Your task to perform on an android device: turn off translation in the chrome app Image 0: 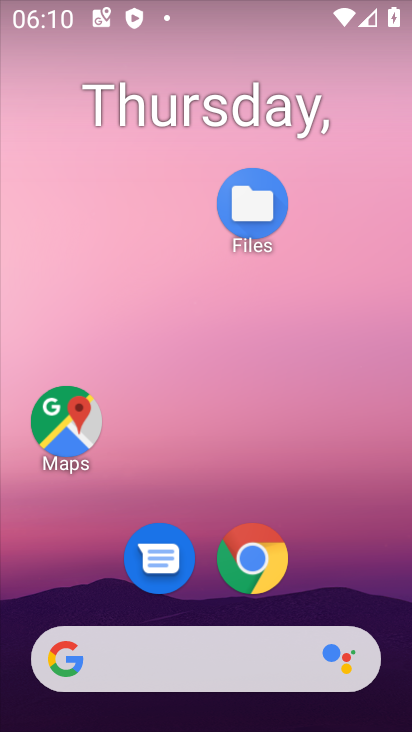
Step 0: drag from (322, 539) to (335, 87)
Your task to perform on an android device: turn off translation in the chrome app Image 1: 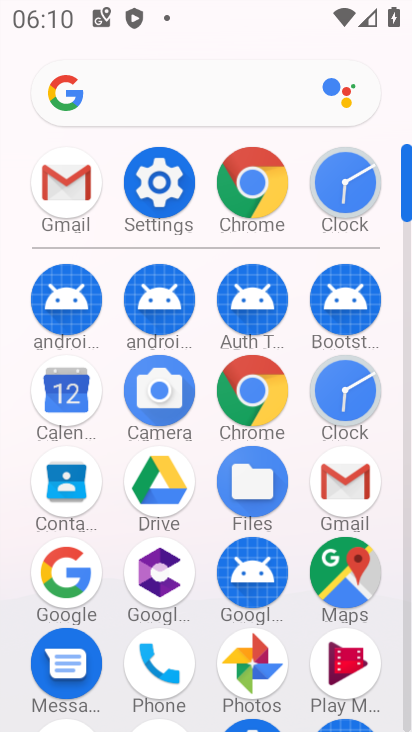
Step 1: click (245, 187)
Your task to perform on an android device: turn off translation in the chrome app Image 2: 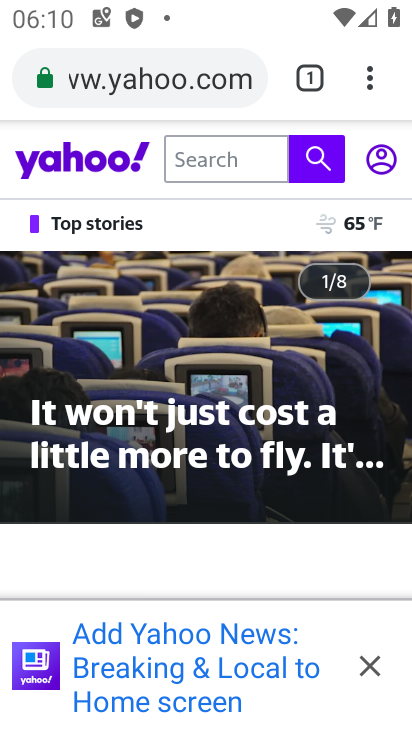
Step 2: click (370, 73)
Your task to perform on an android device: turn off translation in the chrome app Image 3: 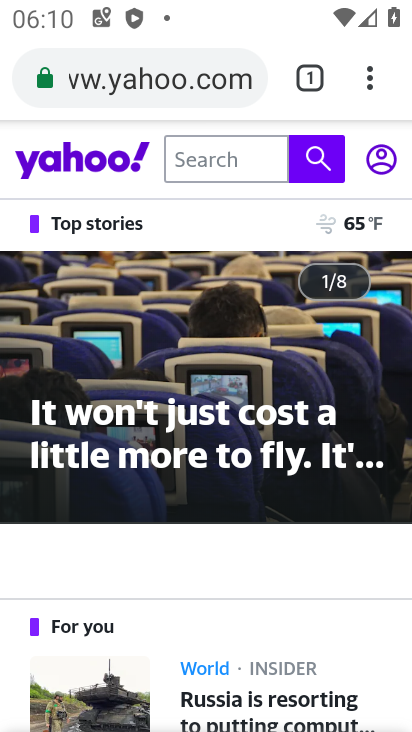
Step 3: click (366, 77)
Your task to perform on an android device: turn off translation in the chrome app Image 4: 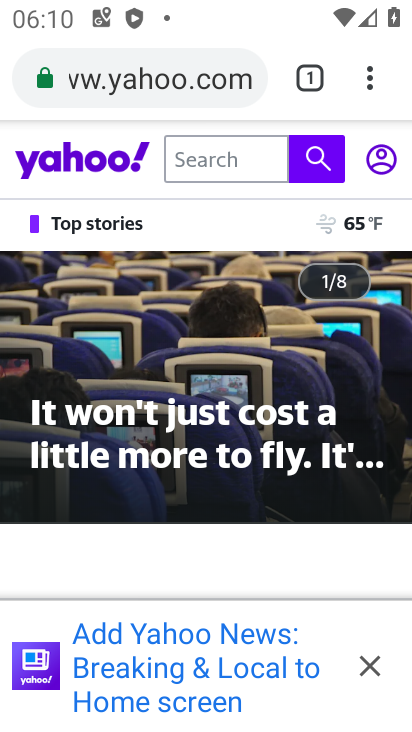
Step 4: click (366, 79)
Your task to perform on an android device: turn off translation in the chrome app Image 5: 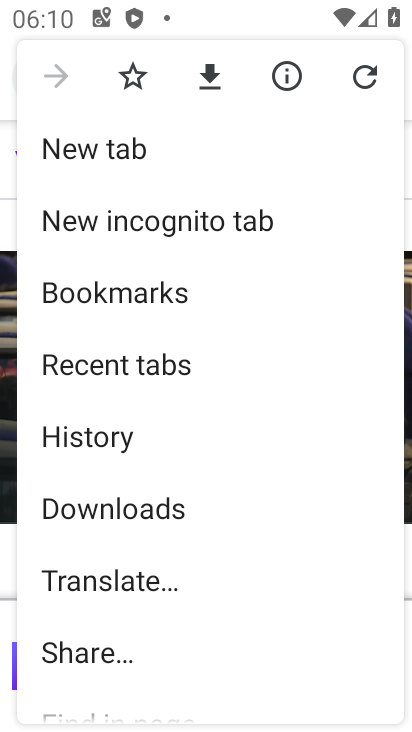
Step 5: drag from (172, 613) to (215, 344)
Your task to perform on an android device: turn off translation in the chrome app Image 6: 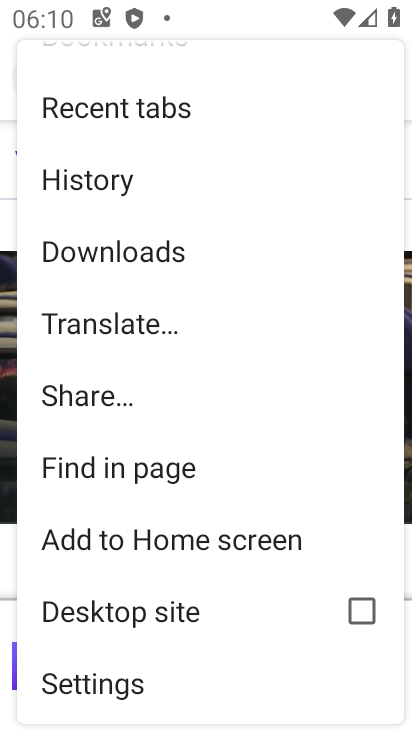
Step 6: click (109, 686)
Your task to perform on an android device: turn off translation in the chrome app Image 7: 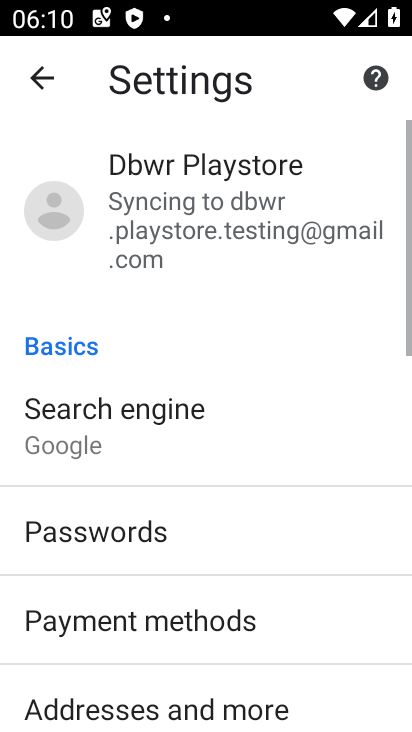
Step 7: drag from (196, 655) to (282, 295)
Your task to perform on an android device: turn off translation in the chrome app Image 8: 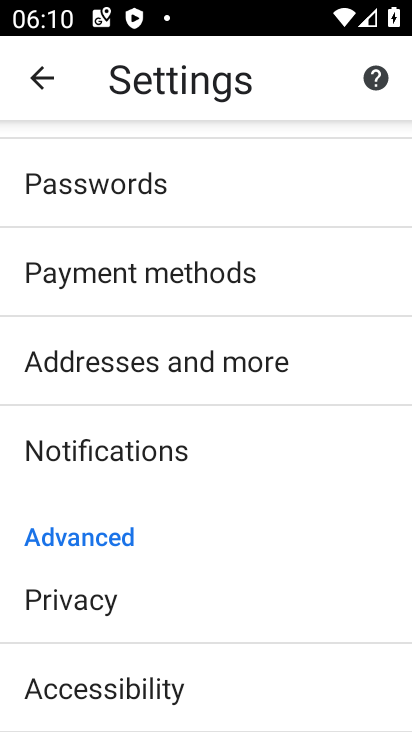
Step 8: drag from (169, 647) to (232, 270)
Your task to perform on an android device: turn off translation in the chrome app Image 9: 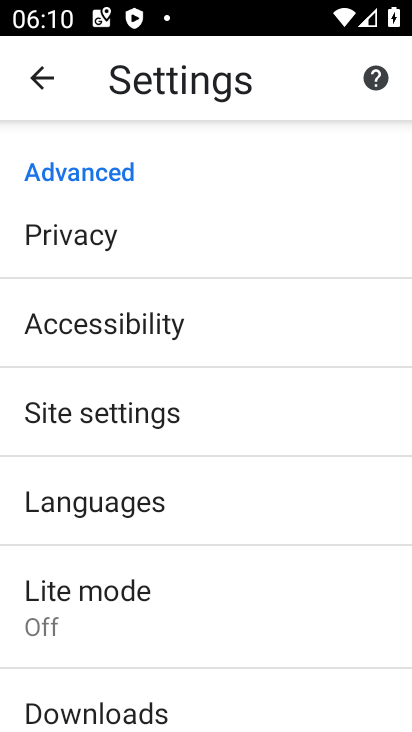
Step 9: click (133, 520)
Your task to perform on an android device: turn off translation in the chrome app Image 10: 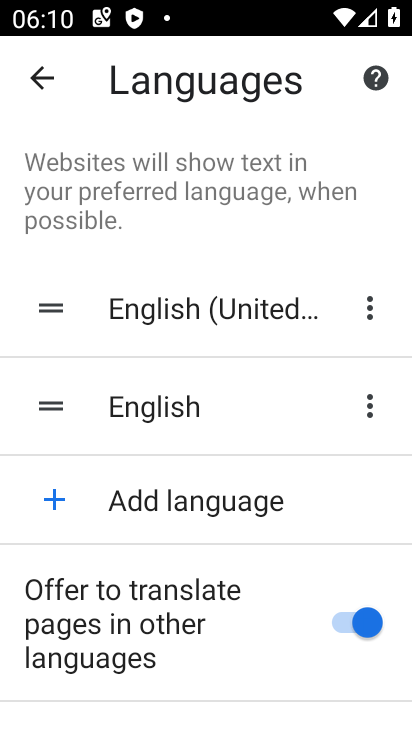
Step 10: click (350, 609)
Your task to perform on an android device: turn off translation in the chrome app Image 11: 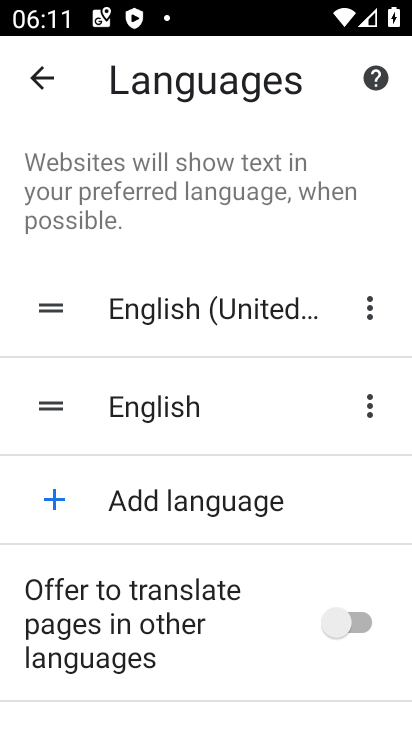
Step 11: task complete